Your task to perform on an android device: toggle pop-ups in chrome Image 0: 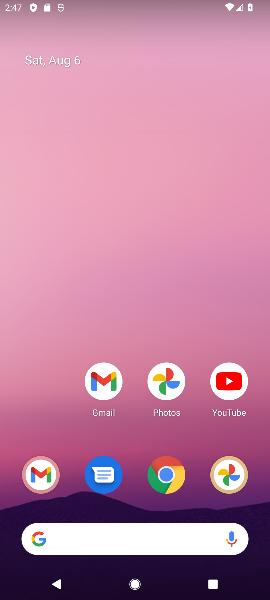
Step 0: click (159, 481)
Your task to perform on an android device: toggle pop-ups in chrome Image 1: 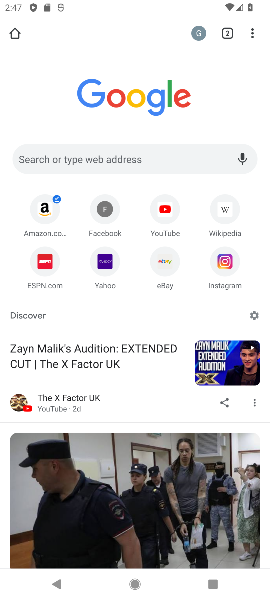
Step 1: click (256, 31)
Your task to perform on an android device: toggle pop-ups in chrome Image 2: 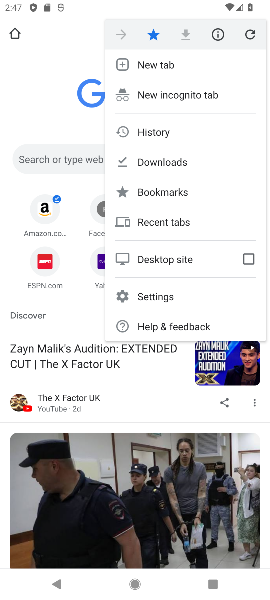
Step 2: click (150, 298)
Your task to perform on an android device: toggle pop-ups in chrome Image 3: 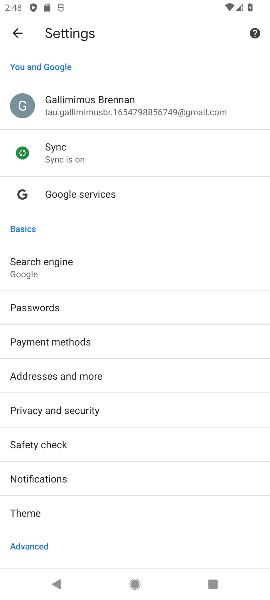
Step 3: drag from (205, 535) to (202, 367)
Your task to perform on an android device: toggle pop-ups in chrome Image 4: 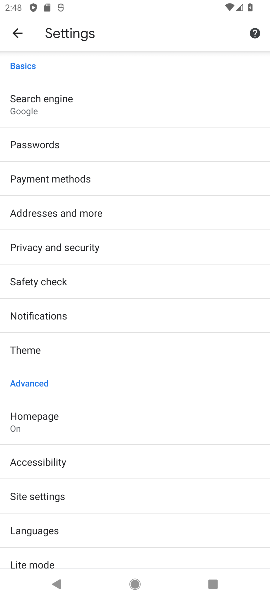
Step 4: click (27, 495)
Your task to perform on an android device: toggle pop-ups in chrome Image 5: 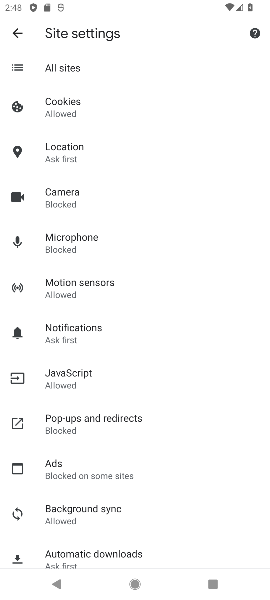
Step 5: click (102, 427)
Your task to perform on an android device: toggle pop-ups in chrome Image 6: 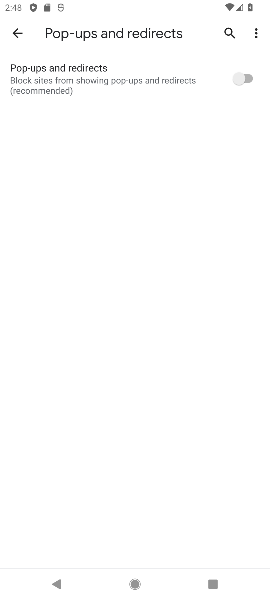
Step 6: click (236, 71)
Your task to perform on an android device: toggle pop-ups in chrome Image 7: 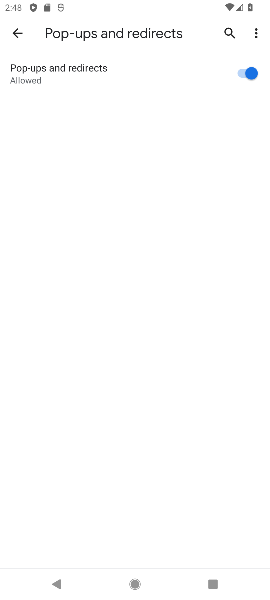
Step 7: task complete